Your task to perform on an android device: Open Reddit.com Image 0: 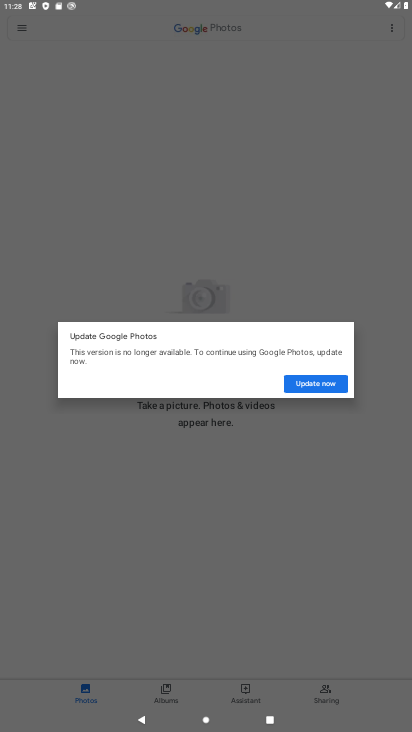
Step 0: drag from (376, 664) to (409, 421)
Your task to perform on an android device: Open Reddit.com Image 1: 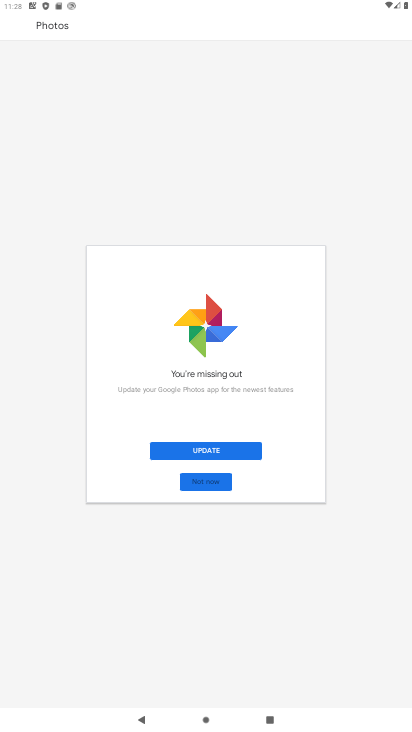
Step 1: press home button
Your task to perform on an android device: Open Reddit.com Image 2: 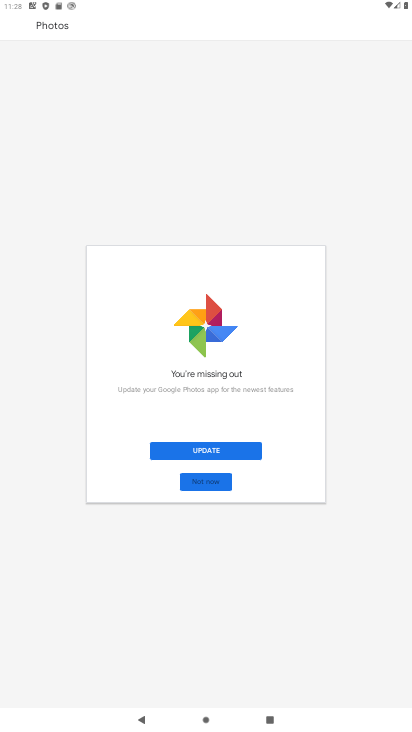
Step 2: drag from (404, 637) to (297, 61)
Your task to perform on an android device: Open Reddit.com Image 3: 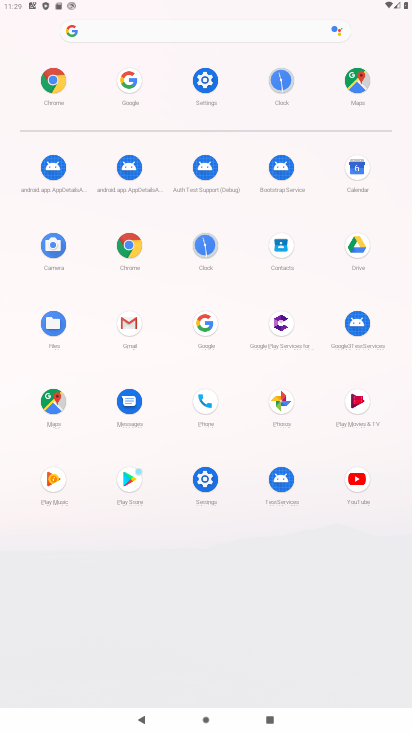
Step 3: click (121, 78)
Your task to perform on an android device: Open Reddit.com Image 4: 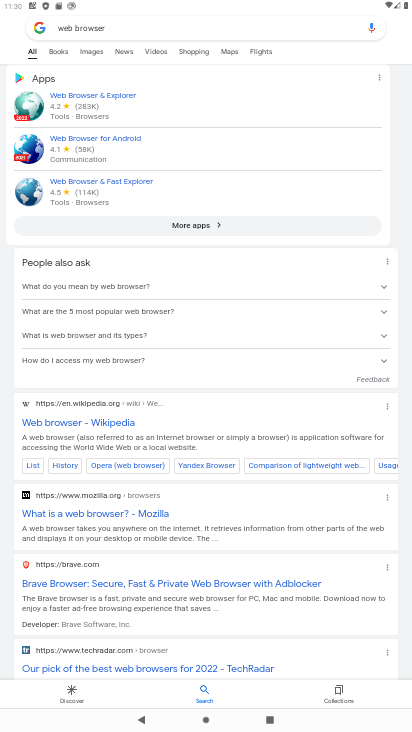
Step 4: press back button
Your task to perform on an android device: Open Reddit.com Image 5: 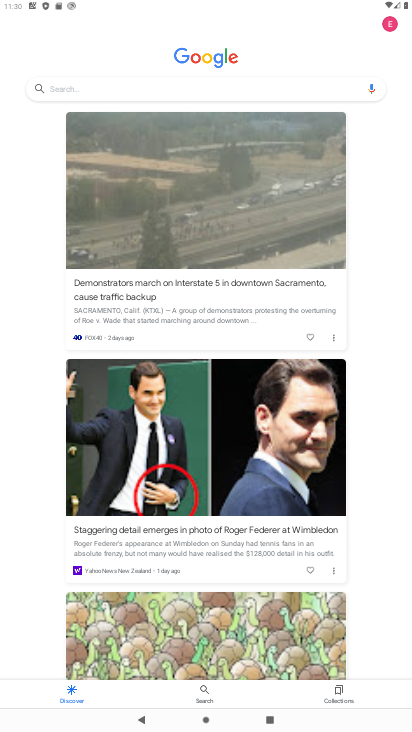
Step 5: click (108, 83)
Your task to perform on an android device: Open Reddit.com Image 6: 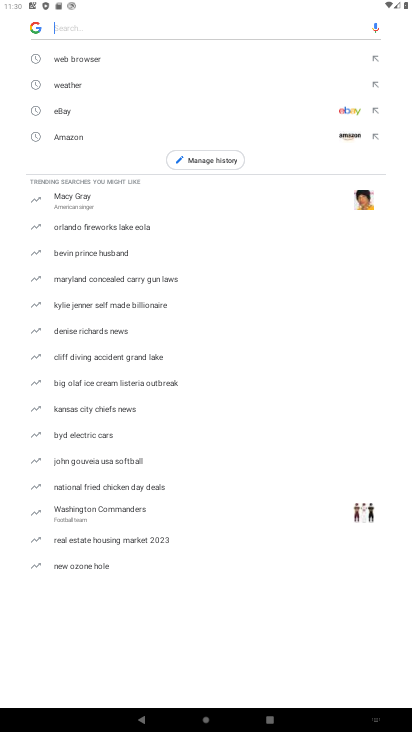
Step 6: type "reddit.com"
Your task to perform on an android device: Open Reddit.com Image 7: 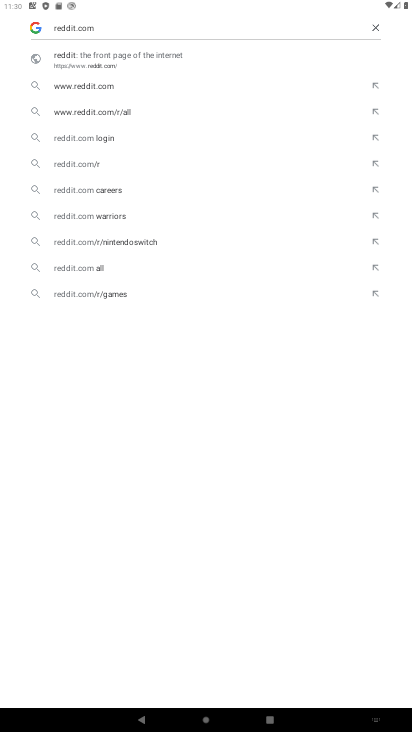
Step 7: click (103, 66)
Your task to perform on an android device: Open Reddit.com Image 8: 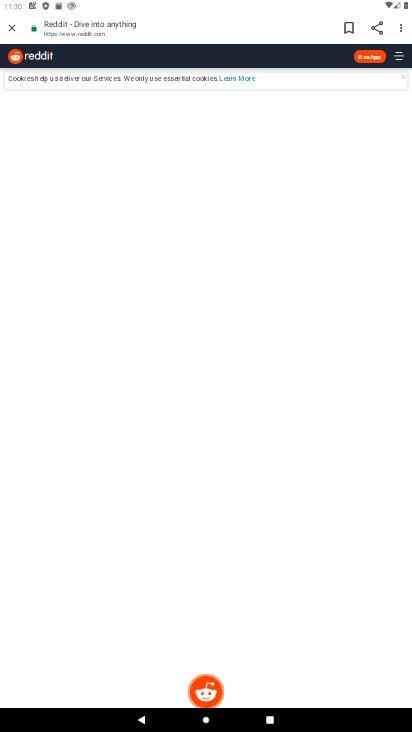
Step 8: task complete